Your task to perform on an android device: open app "The Home Depot" (install if not already installed), go to login, and select forgot password Image 0: 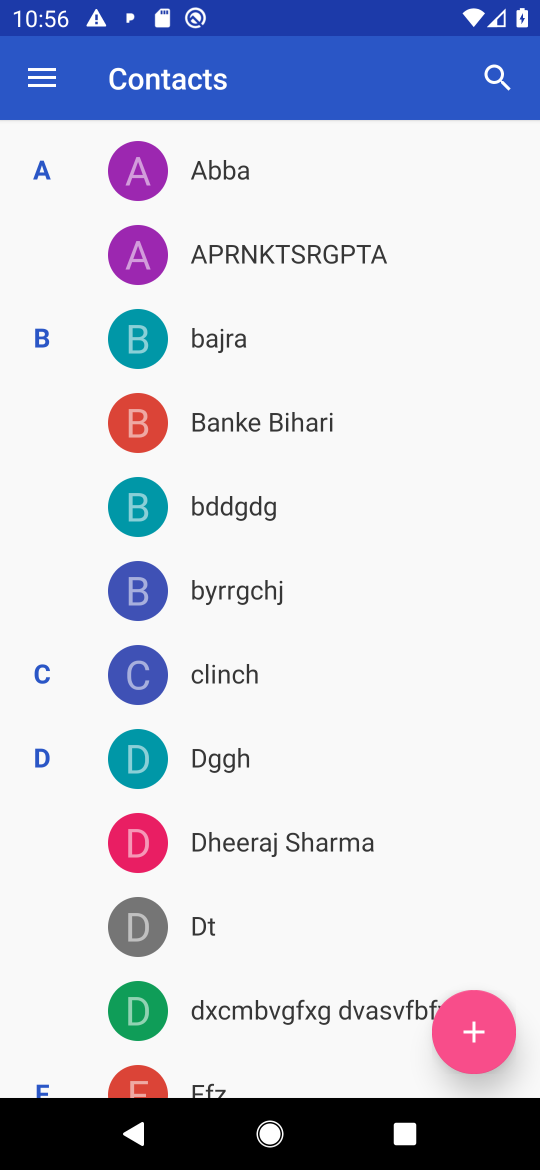
Step 0: press home button
Your task to perform on an android device: open app "The Home Depot" (install if not already installed), go to login, and select forgot password Image 1: 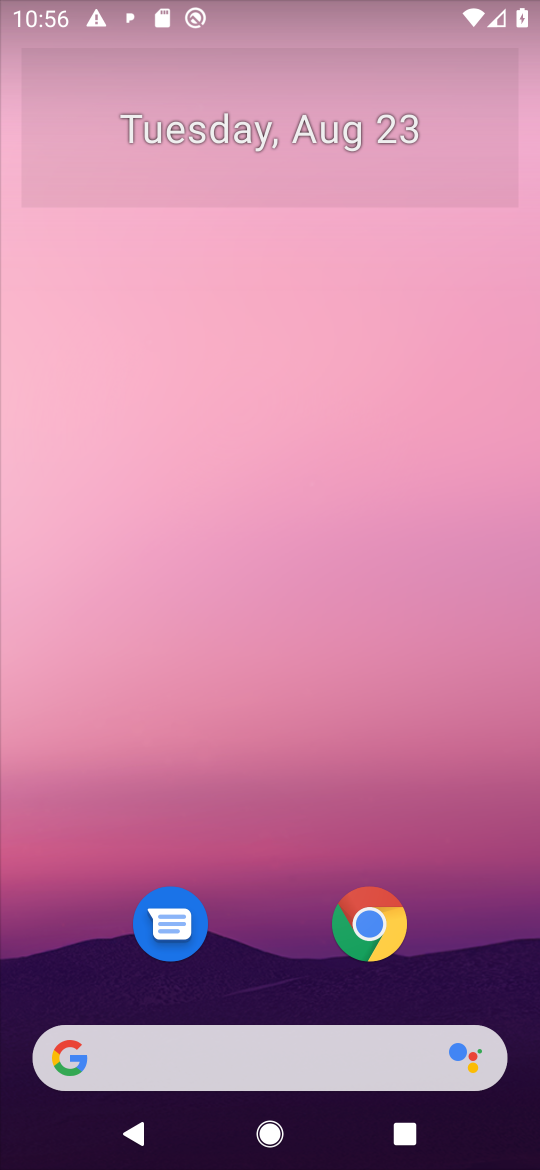
Step 1: drag from (483, 937) to (474, 145)
Your task to perform on an android device: open app "The Home Depot" (install if not already installed), go to login, and select forgot password Image 2: 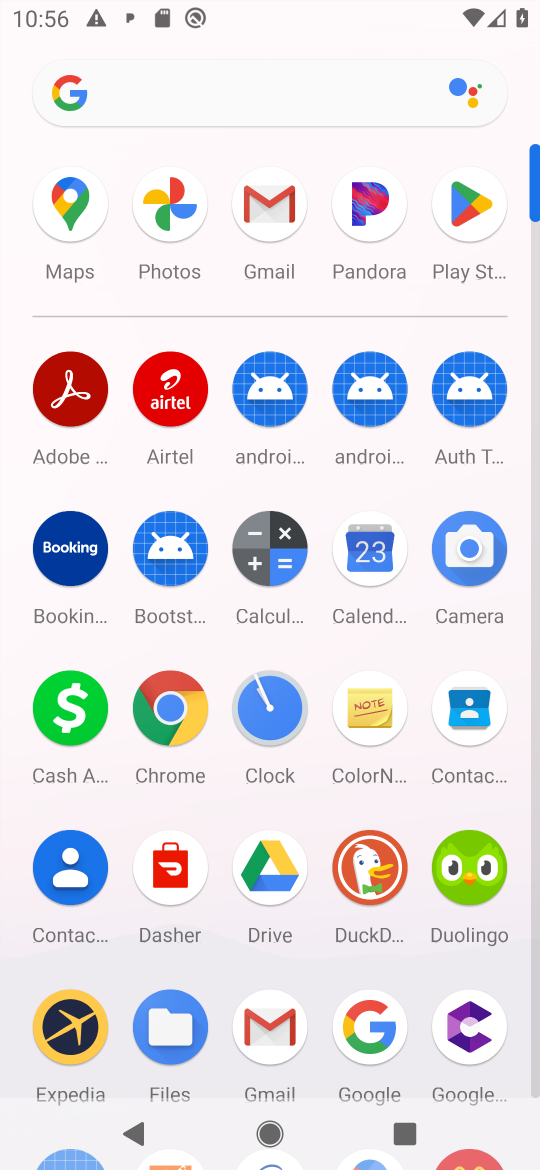
Step 2: click (475, 208)
Your task to perform on an android device: open app "The Home Depot" (install if not already installed), go to login, and select forgot password Image 3: 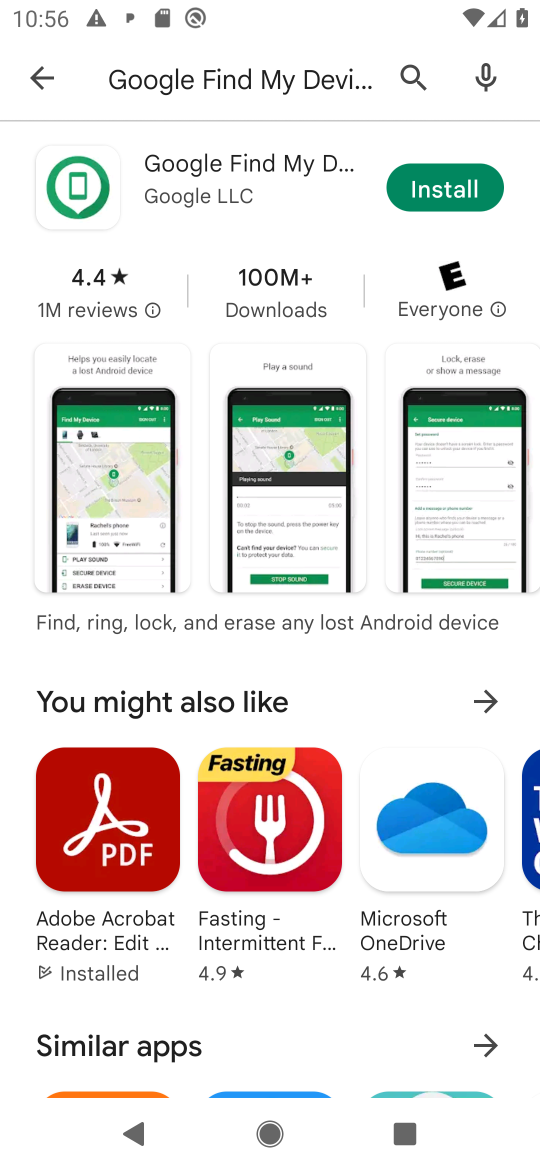
Step 3: press back button
Your task to perform on an android device: open app "The Home Depot" (install if not already installed), go to login, and select forgot password Image 4: 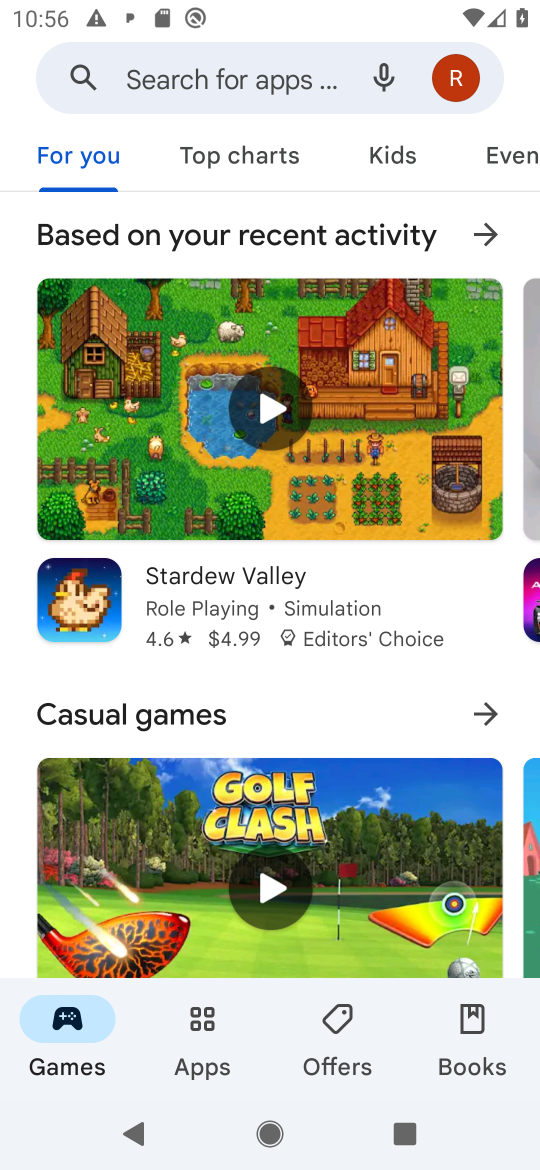
Step 4: click (287, 84)
Your task to perform on an android device: open app "The Home Depot" (install if not already installed), go to login, and select forgot password Image 5: 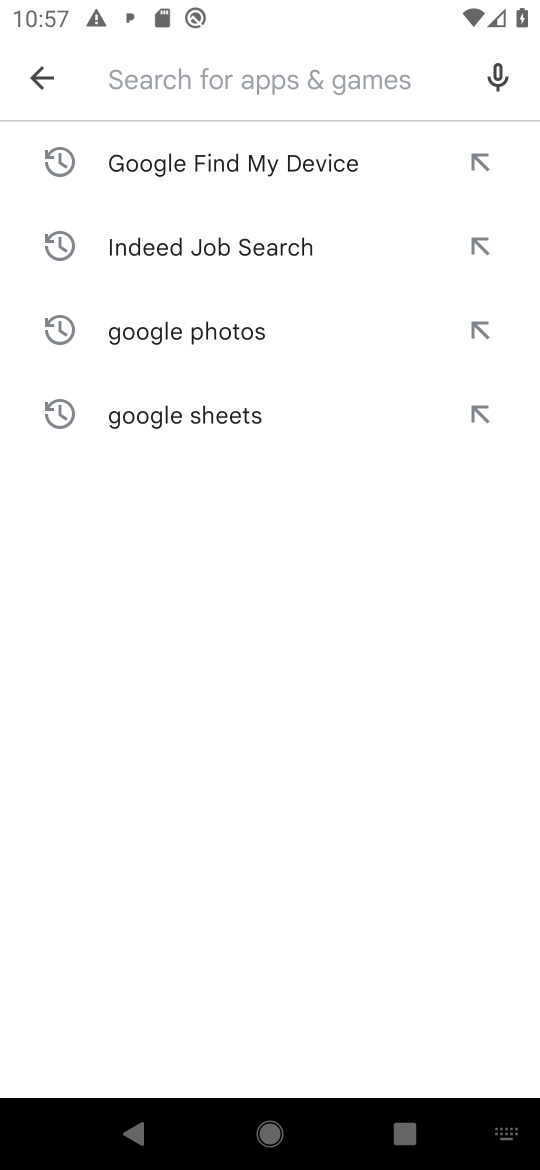
Step 5: type "The Home Depot"
Your task to perform on an android device: open app "The Home Depot" (install if not already installed), go to login, and select forgot password Image 6: 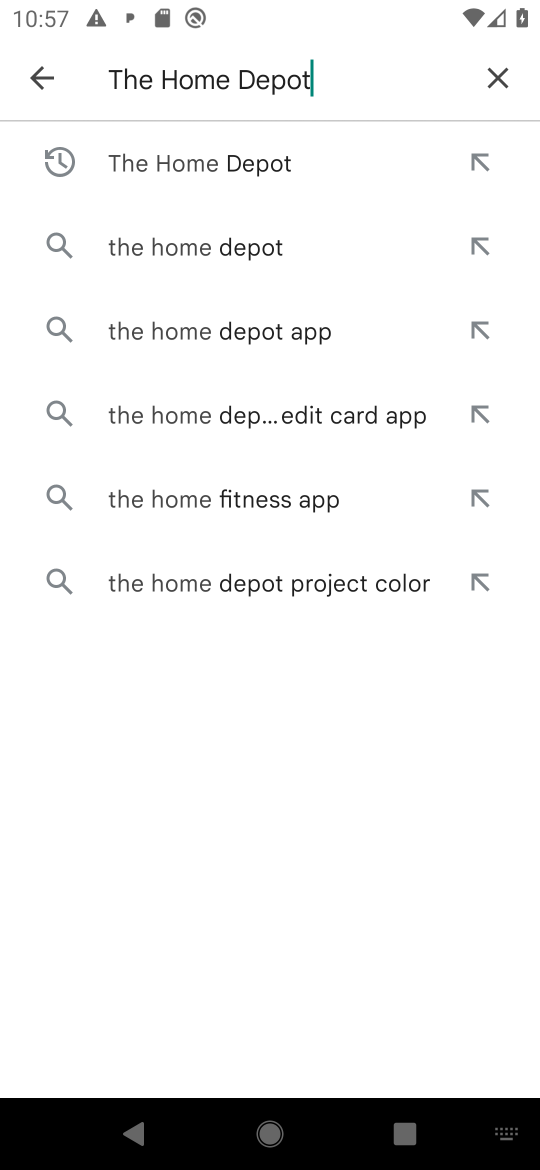
Step 6: press enter
Your task to perform on an android device: open app "The Home Depot" (install if not already installed), go to login, and select forgot password Image 7: 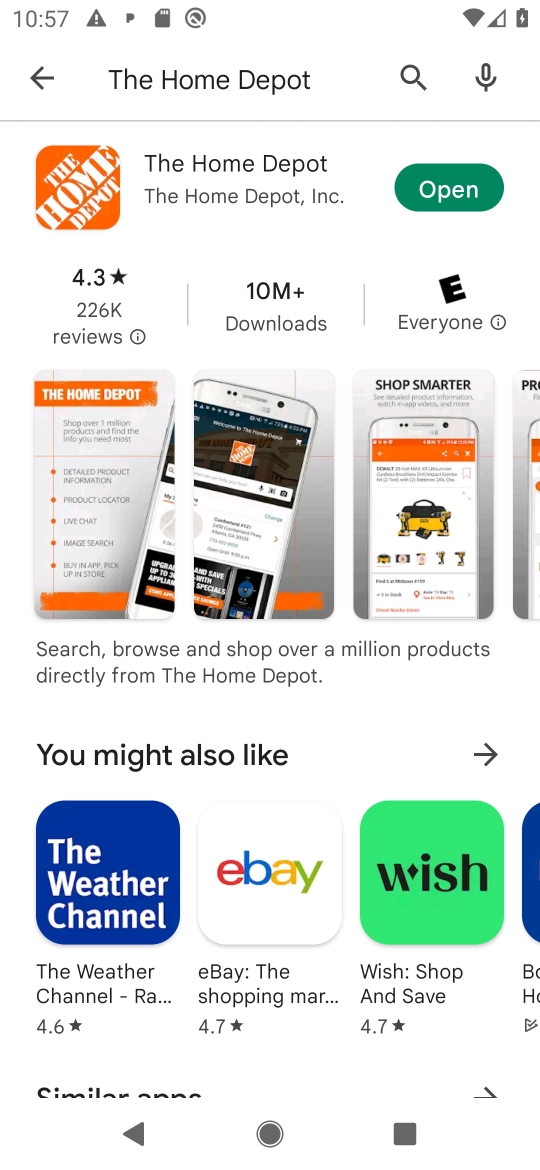
Step 7: click (457, 186)
Your task to perform on an android device: open app "The Home Depot" (install if not already installed), go to login, and select forgot password Image 8: 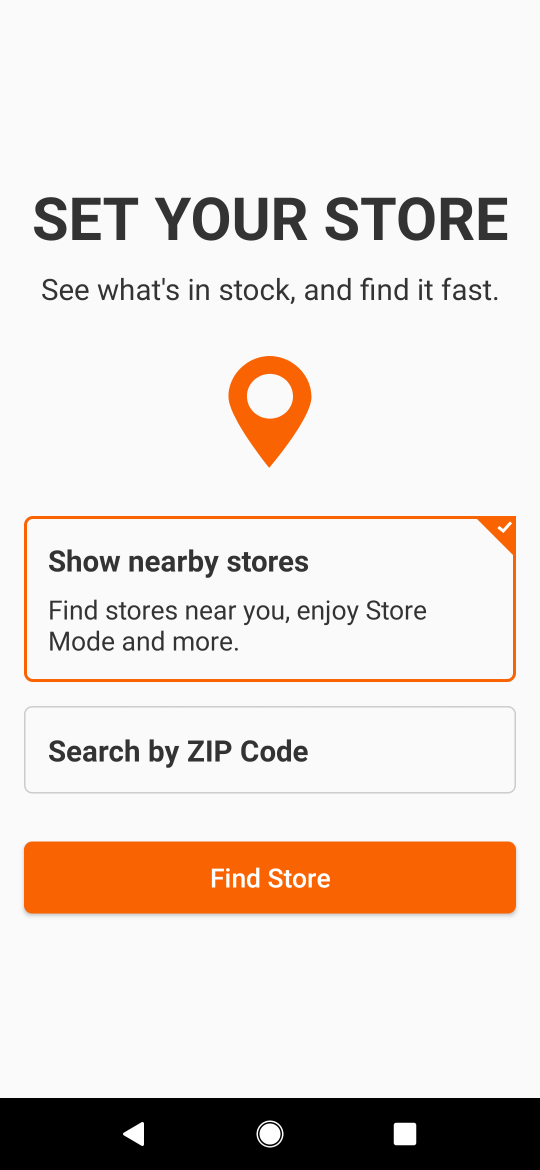
Step 8: task complete